Your task to perform on an android device: change the upload size in google photos Image 0: 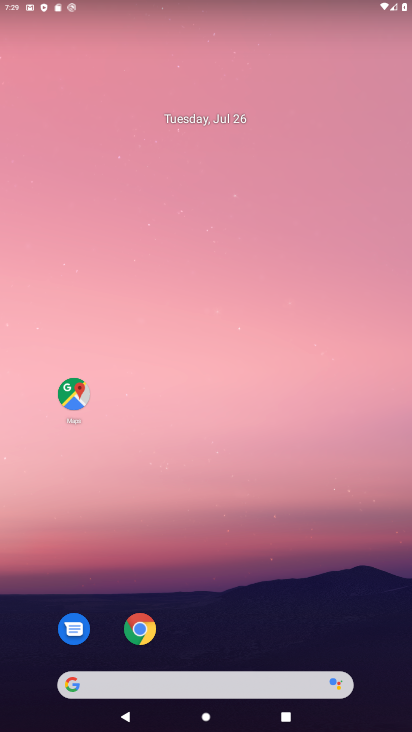
Step 0: press home button
Your task to perform on an android device: change the upload size in google photos Image 1: 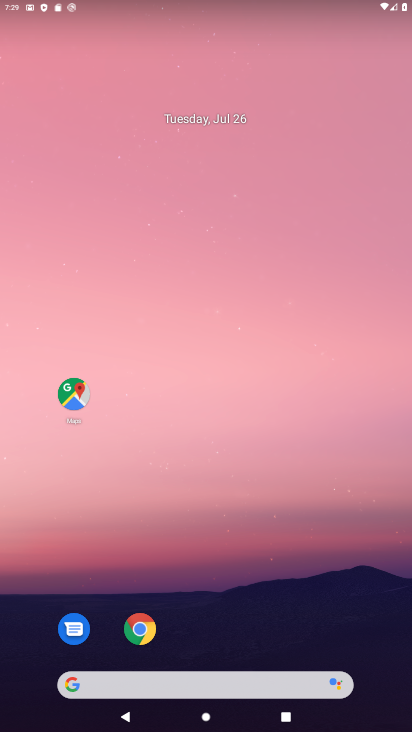
Step 1: drag from (213, 648) to (226, 22)
Your task to perform on an android device: change the upload size in google photos Image 2: 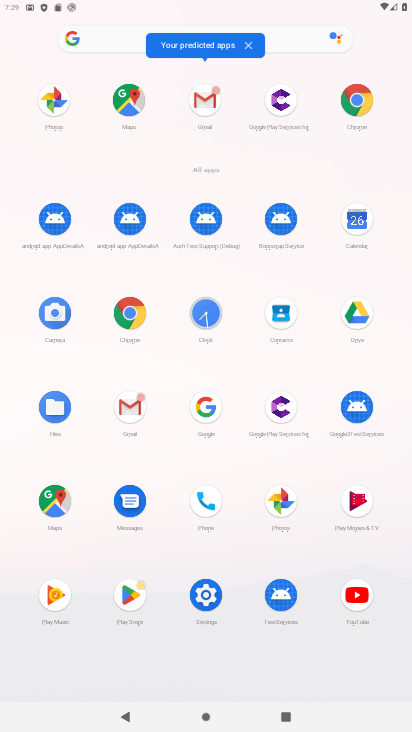
Step 2: click (281, 494)
Your task to perform on an android device: change the upload size in google photos Image 3: 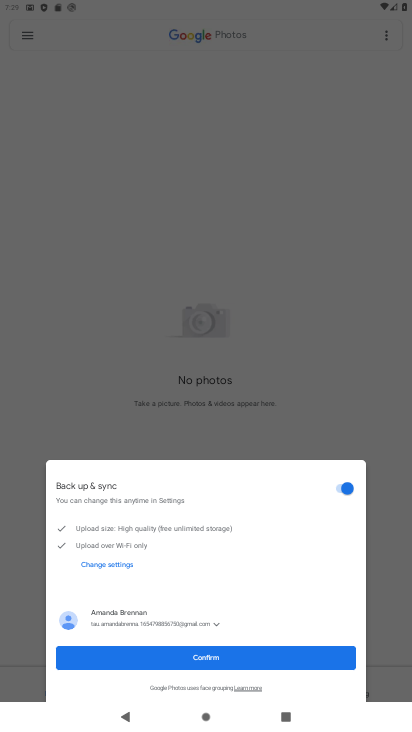
Step 3: click (205, 658)
Your task to perform on an android device: change the upload size in google photos Image 4: 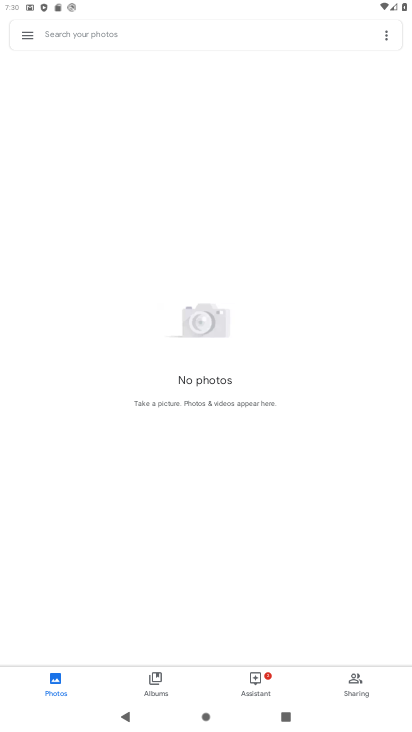
Step 4: click (25, 34)
Your task to perform on an android device: change the upload size in google photos Image 5: 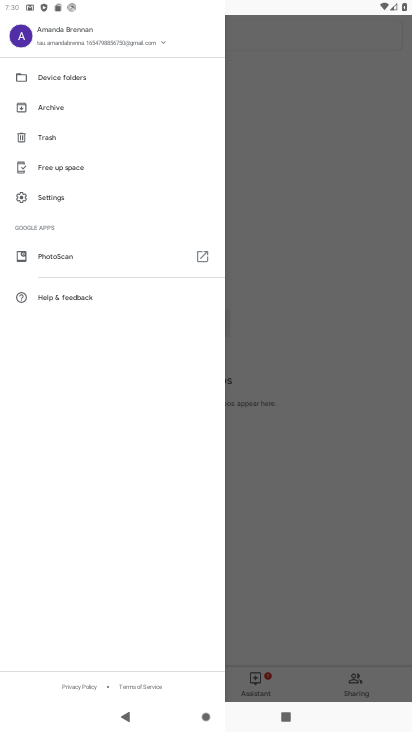
Step 5: click (33, 196)
Your task to perform on an android device: change the upload size in google photos Image 6: 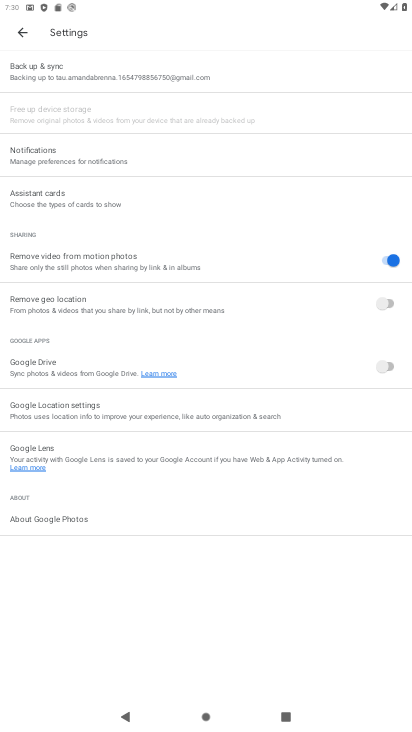
Step 6: click (74, 64)
Your task to perform on an android device: change the upload size in google photos Image 7: 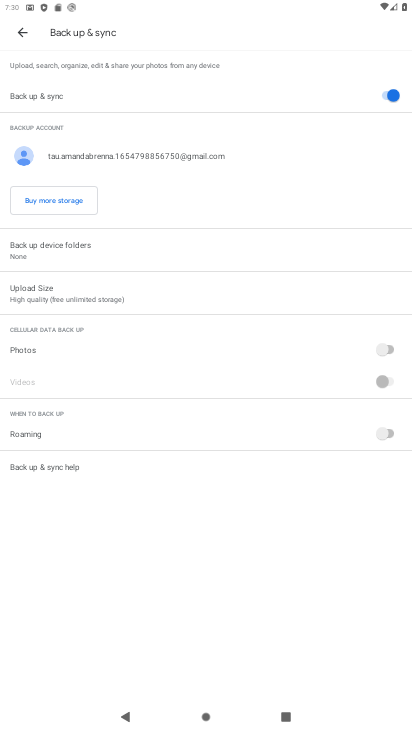
Step 7: click (69, 286)
Your task to perform on an android device: change the upload size in google photos Image 8: 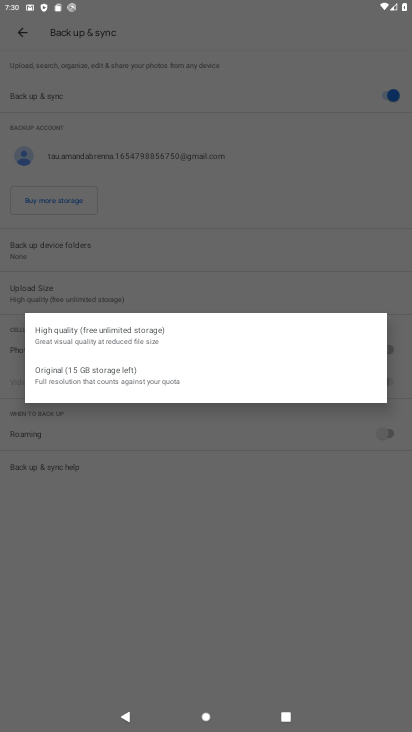
Step 8: click (104, 379)
Your task to perform on an android device: change the upload size in google photos Image 9: 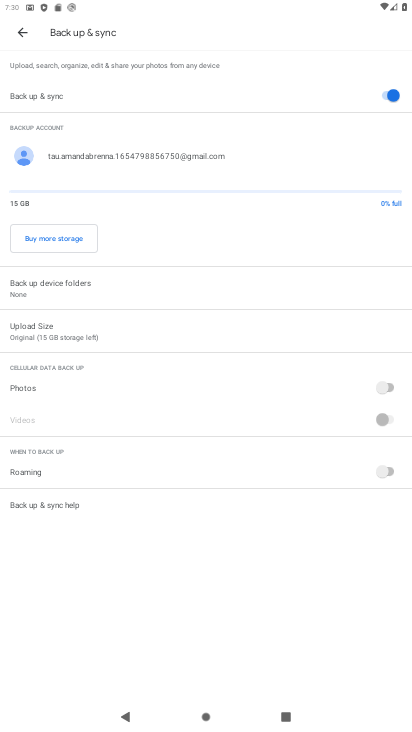
Step 9: task complete